Your task to perform on an android device: turn off location history Image 0: 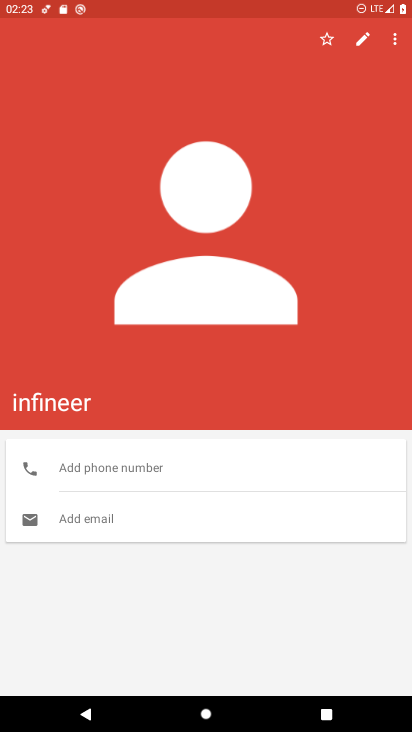
Step 0: press home button
Your task to perform on an android device: turn off location history Image 1: 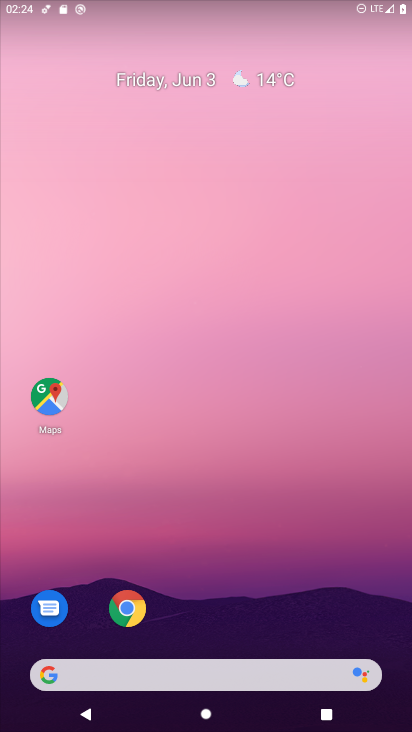
Step 1: drag from (254, 529) to (159, 163)
Your task to perform on an android device: turn off location history Image 2: 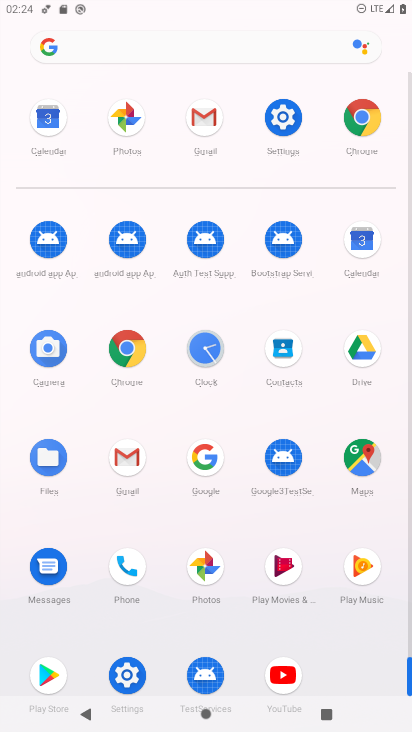
Step 2: click (286, 114)
Your task to perform on an android device: turn off location history Image 3: 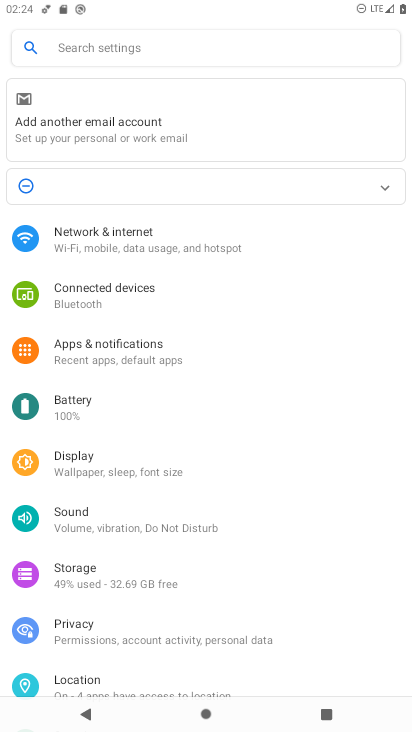
Step 3: drag from (197, 660) to (209, 307)
Your task to perform on an android device: turn off location history Image 4: 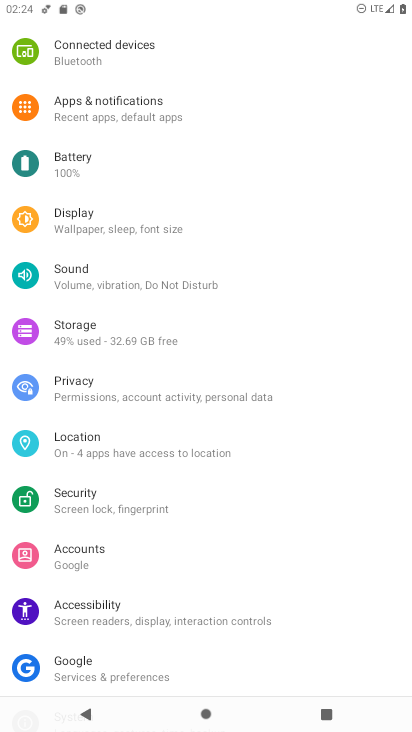
Step 4: click (86, 447)
Your task to perform on an android device: turn off location history Image 5: 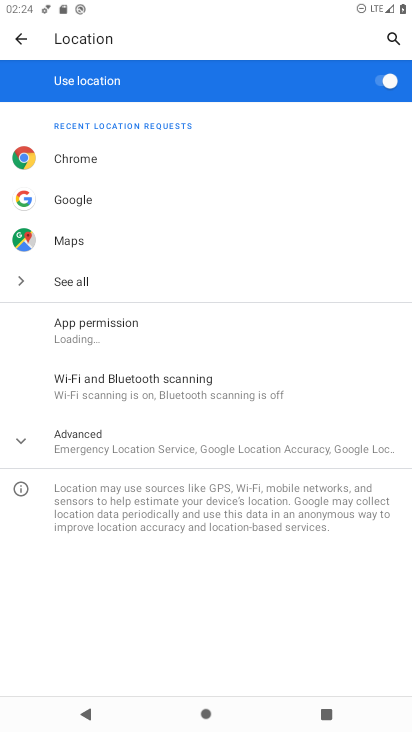
Step 5: click (375, 72)
Your task to perform on an android device: turn off location history Image 6: 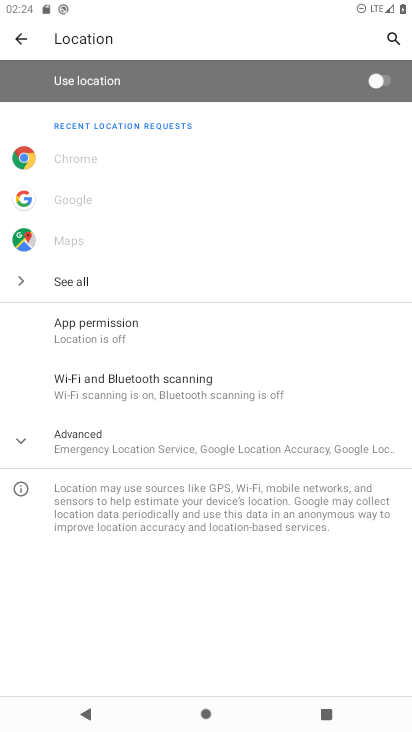
Step 6: click (370, 98)
Your task to perform on an android device: turn off location history Image 7: 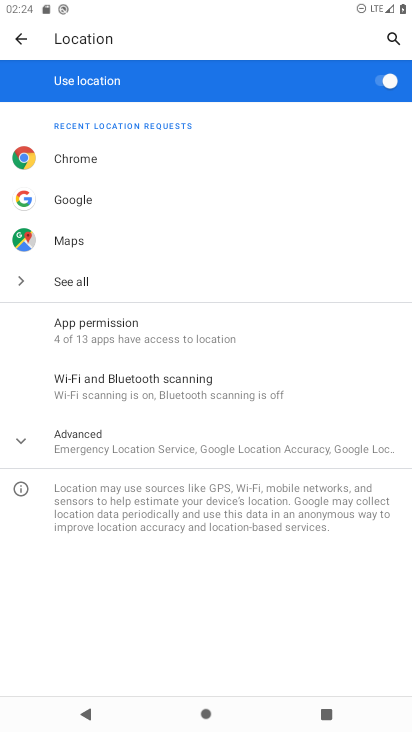
Step 7: click (144, 457)
Your task to perform on an android device: turn off location history Image 8: 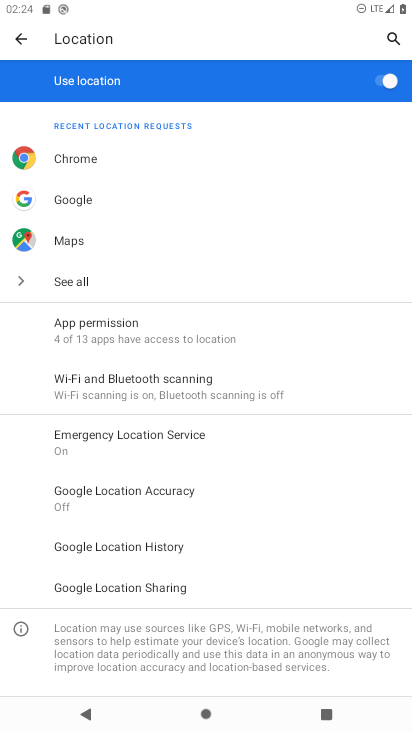
Step 8: click (148, 548)
Your task to perform on an android device: turn off location history Image 9: 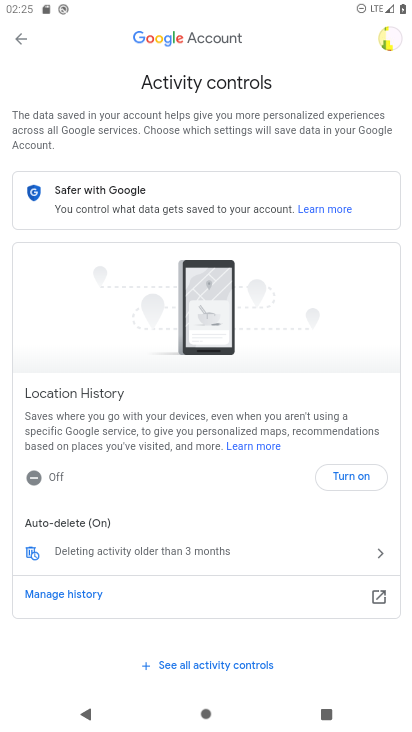
Step 9: task complete